Your task to perform on an android device: search for starred emails in the gmail app Image 0: 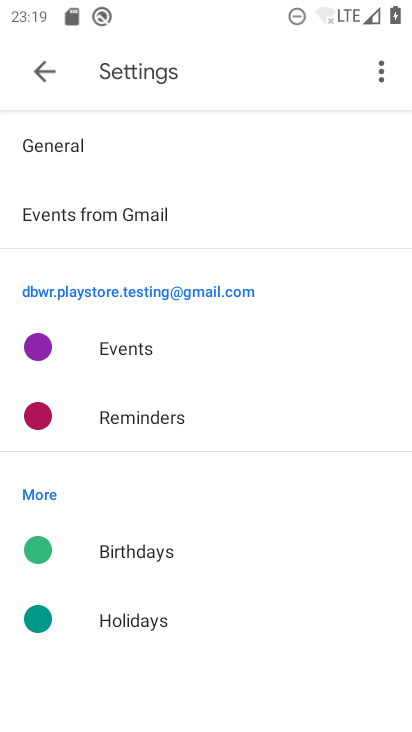
Step 0: press home button
Your task to perform on an android device: search for starred emails in the gmail app Image 1: 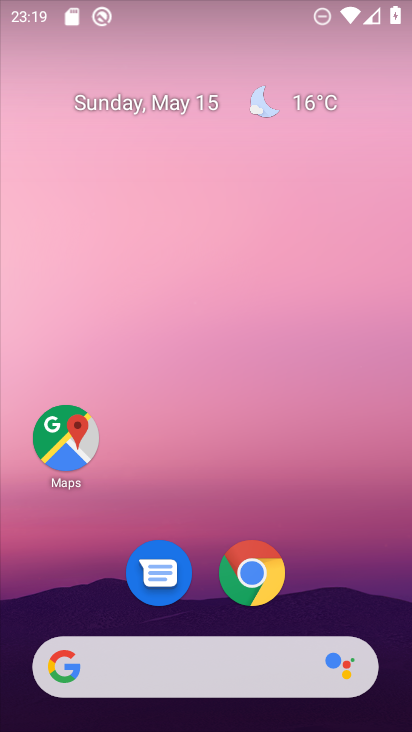
Step 1: drag from (332, 562) to (346, 12)
Your task to perform on an android device: search for starred emails in the gmail app Image 2: 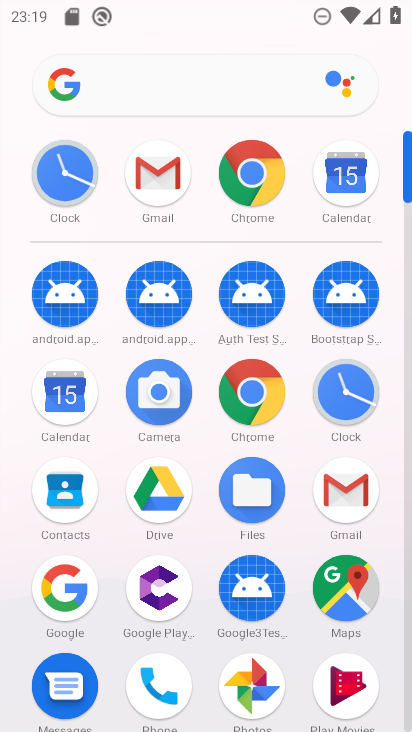
Step 2: click (334, 498)
Your task to perform on an android device: search for starred emails in the gmail app Image 3: 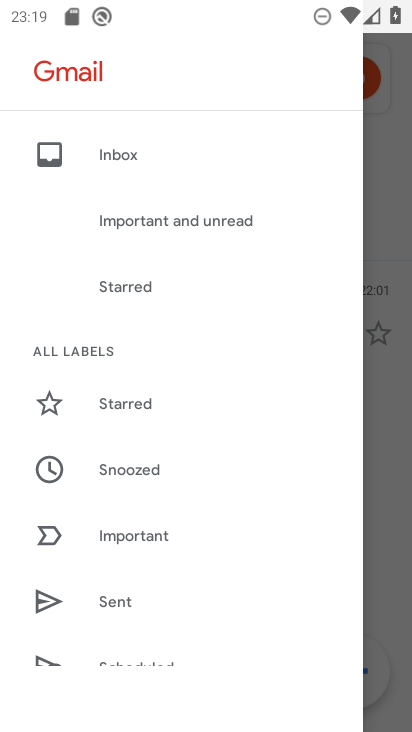
Step 3: drag from (252, 543) to (225, 357)
Your task to perform on an android device: search for starred emails in the gmail app Image 4: 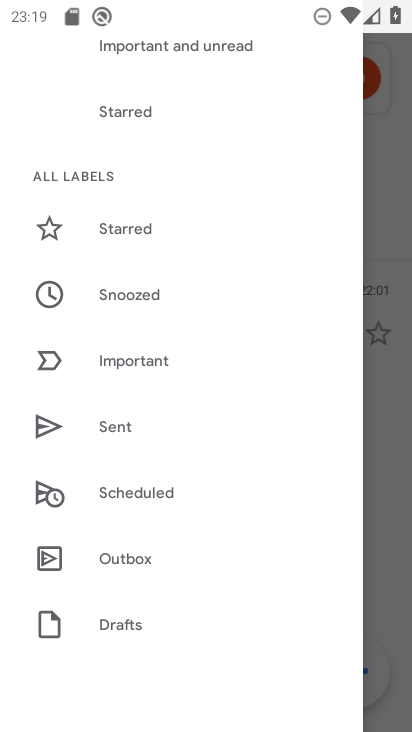
Step 4: click (117, 224)
Your task to perform on an android device: search for starred emails in the gmail app Image 5: 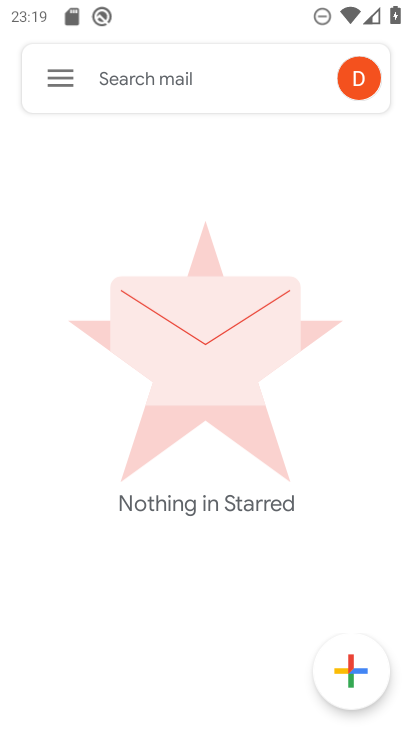
Step 5: task complete